Your task to perform on an android device: Go to notification settings Image 0: 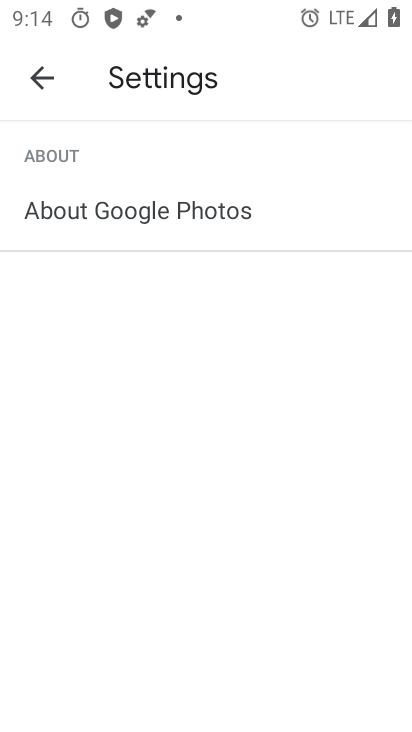
Step 0: press home button
Your task to perform on an android device: Go to notification settings Image 1: 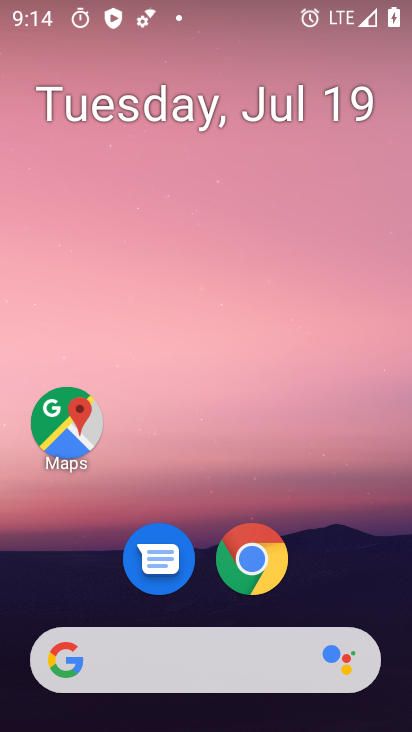
Step 1: drag from (390, 600) to (288, 137)
Your task to perform on an android device: Go to notification settings Image 2: 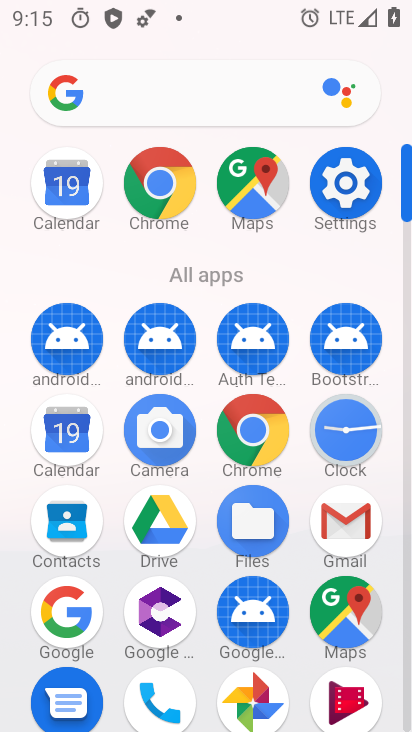
Step 2: click (353, 167)
Your task to perform on an android device: Go to notification settings Image 3: 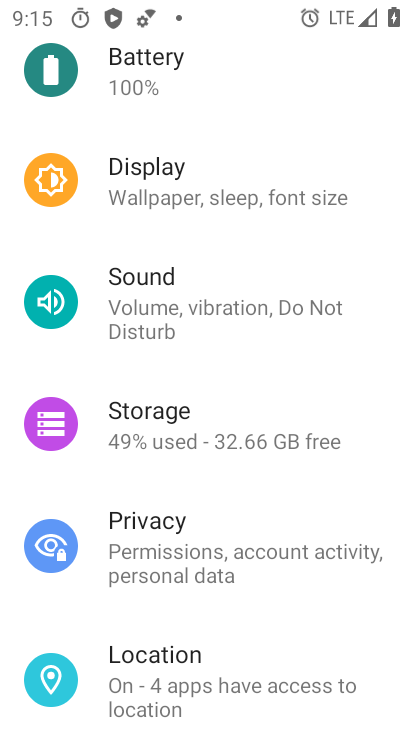
Step 3: drag from (301, 227) to (264, 492)
Your task to perform on an android device: Go to notification settings Image 4: 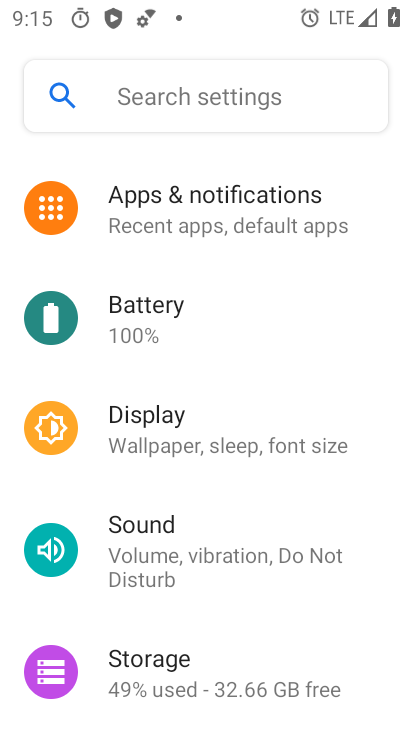
Step 4: click (245, 224)
Your task to perform on an android device: Go to notification settings Image 5: 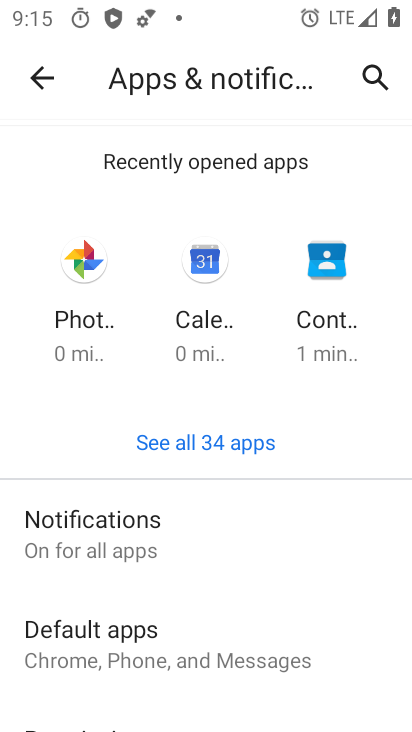
Step 5: click (190, 540)
Your task to perform on an android device: Go to notification settings Image 6: 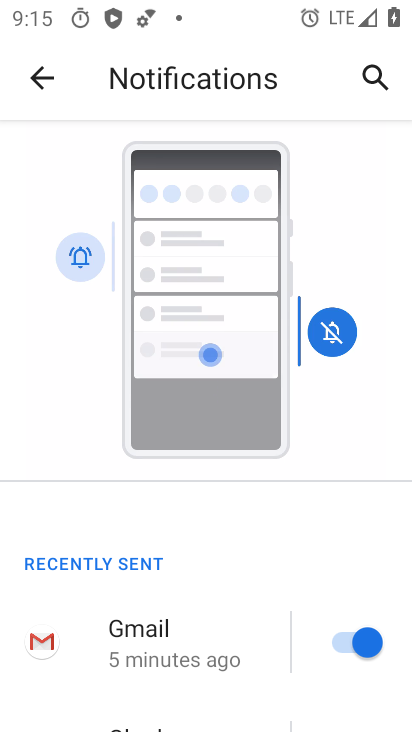
Step 6: task complete